Your task to perform on an android device: stop showing notifications on the lock screen Image 0: 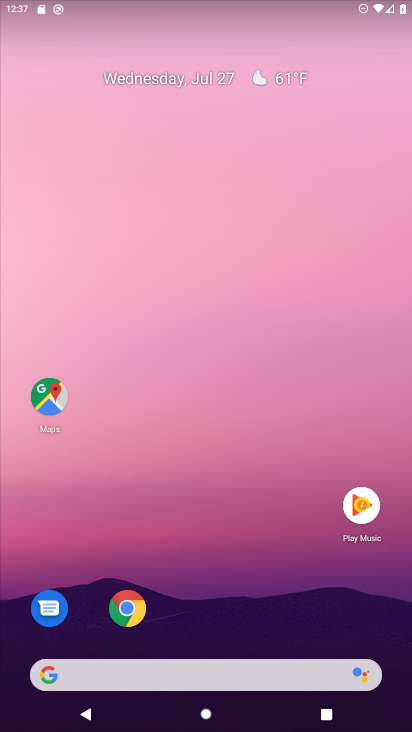
Step 0: press home button
Your task to perform on an android device: stop showing notifications on the lock screen Image 1: 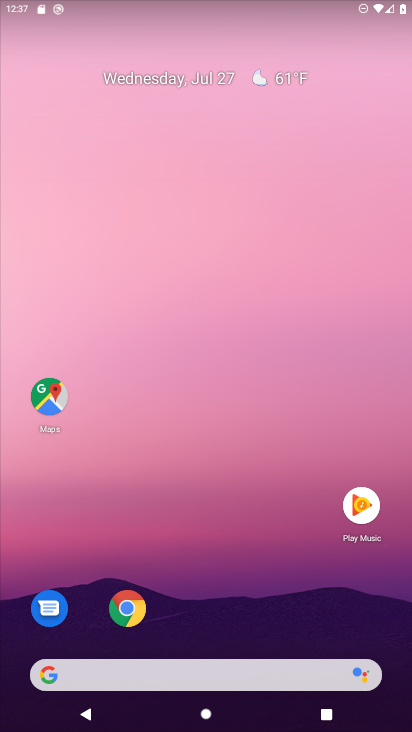
Step 1: drag from (288, 613) to (309, 272)
Your task to perform on an android device: stop showing notifications on the lock screen Image 2: 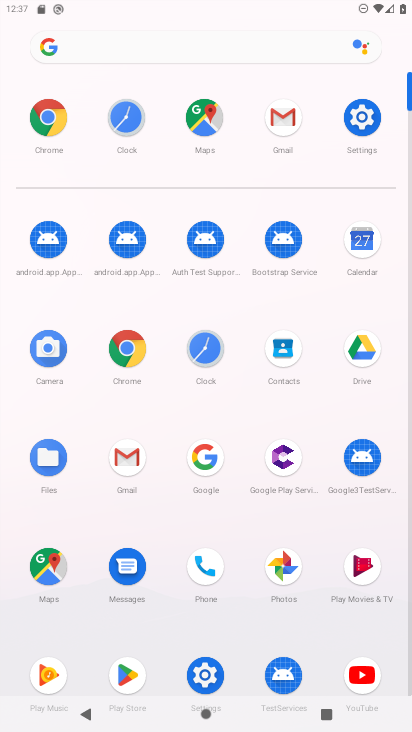
Step 2: click (361, 120)
Your task to perform on an android device: stop showing notifications on the lock screen Image 3: 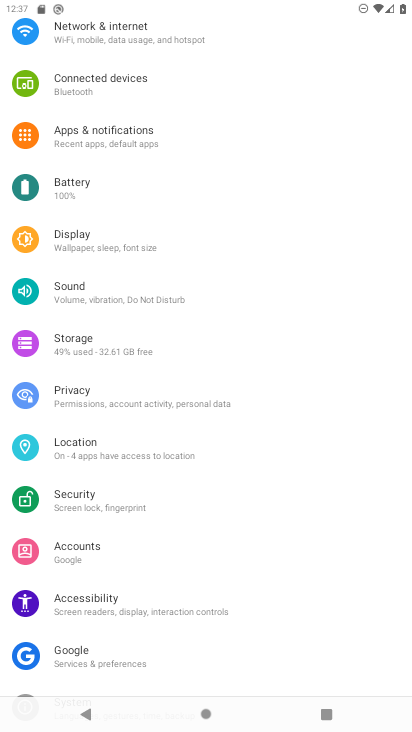
Step 3: drag from (361, 120) to (342, 286)
Your task to perform on an android device: stop showing notifications on the lock screen Image 4: 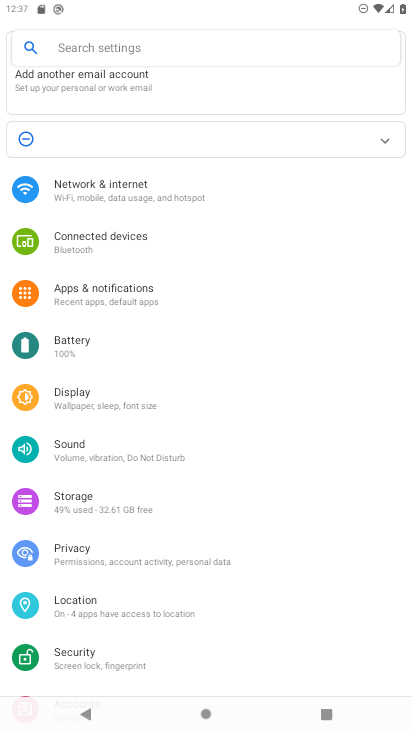
Step 4: drag from (314, 484) to (314, 406)
Your task to perform on an android device: stop showing notifications on the lock screen Image 5: 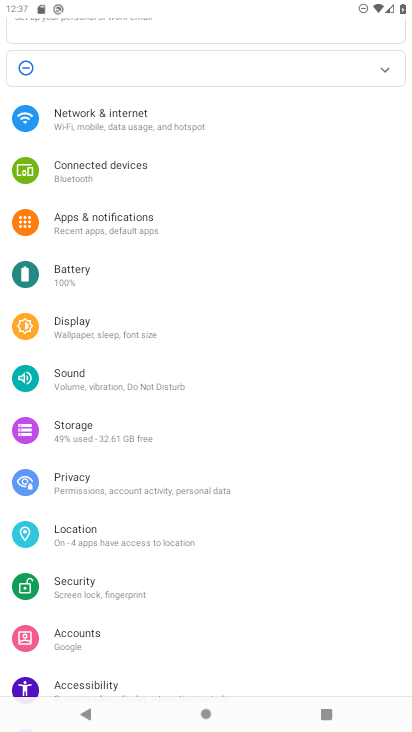
Step 5: drag from (307, 522) to (305, 426)
Your task to perform on an android device: stop showing notifications on the lock screen Image 6: 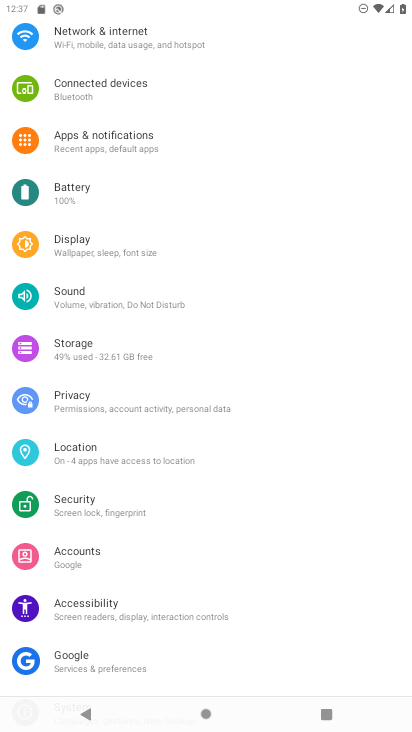
Step 6: drag from (295, 531) to (298, 456)
Your task to perform on an android device: stop showing notifications on the lock screen Image 7: 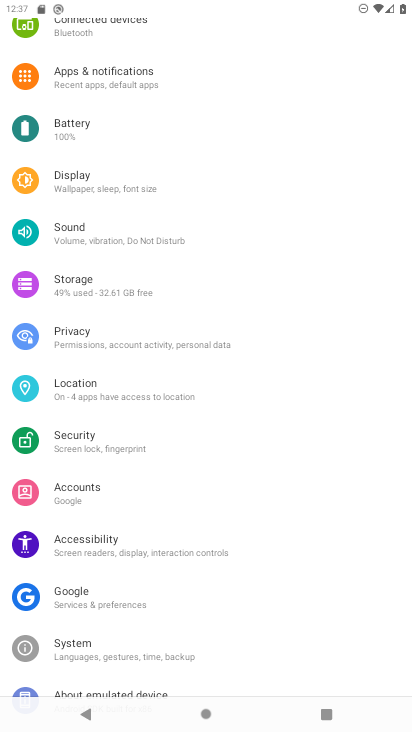
Step 7: drag from (293, 536) to (297, 479)
Your task to perform on an android device: stop showing notifications on the lock screen Image 8: 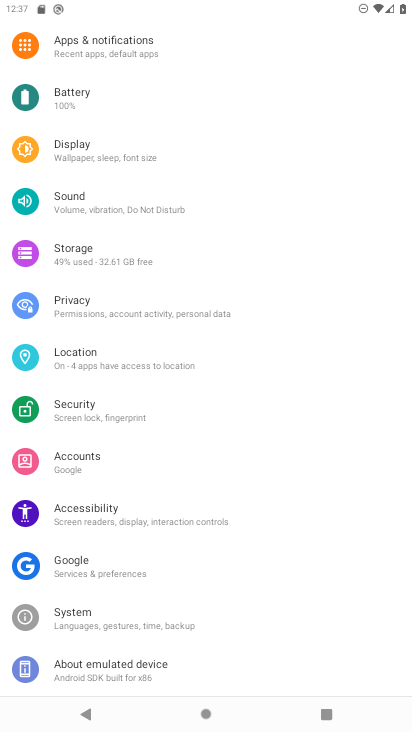
Step 8: drag from (286, 348) to (280, 402)
Your task to perform on an android device: stop showing notifications on the lock screen Image 9: 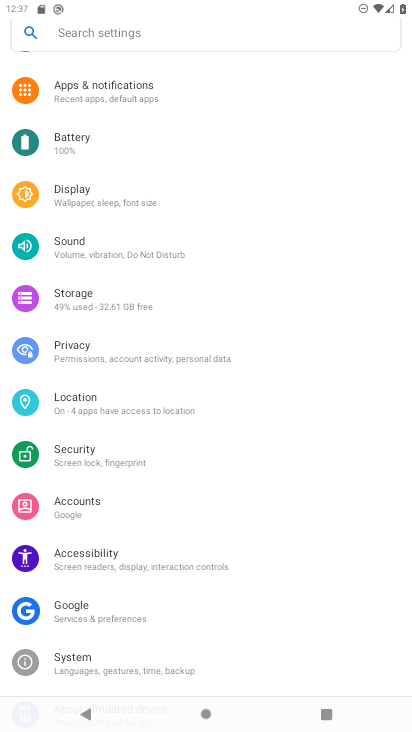
Step 9: drag from (281, 288) to (283, 356)
Your task to perform on an android device: stop showing notifications on the lock screen Image 10: 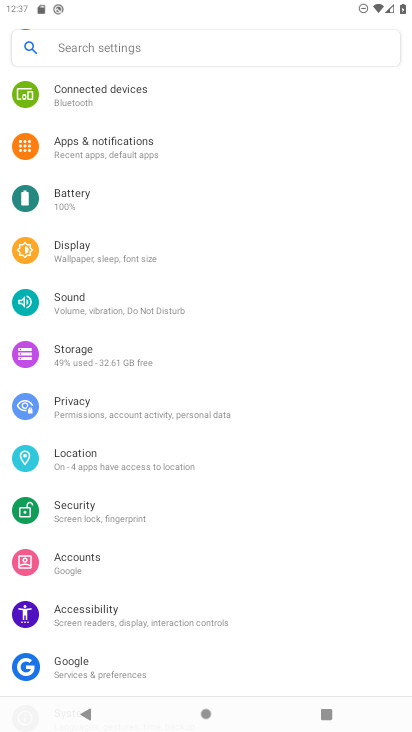
Step 10: drag from (278, 236) to (283, 368)
Your task to perform on an android device: stop showing notifications on the lock screen Image 11: 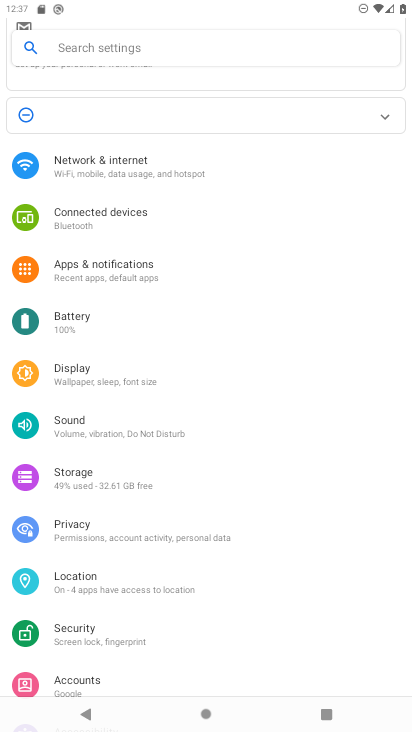
Step 11: click (133, 274)
Your task to perform on an android device: stop showing notifications on the lock screen Image 12: 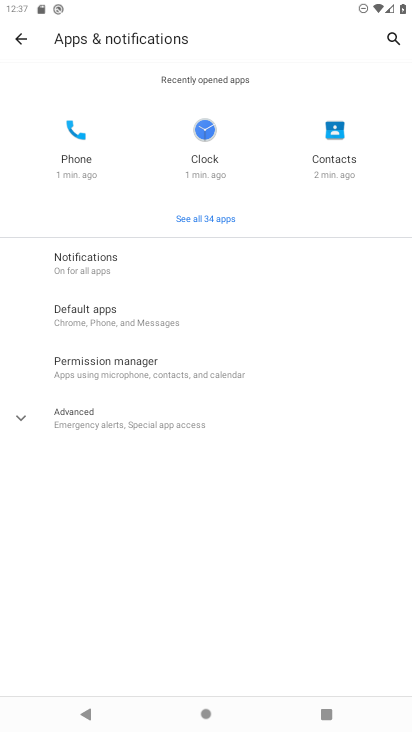
Step 12: click (118, 261)
Your task to perform on an android device: stop showing notifications on the lock screen Image 13: 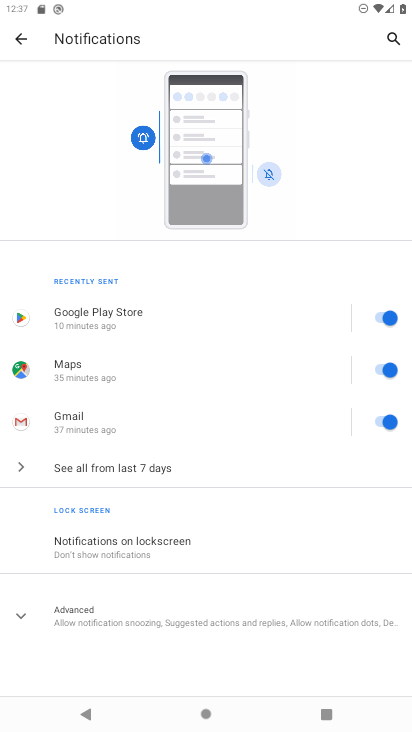
Step 13: click (180, 548)
Your task to perform on an android device: stop showing notifications on the lock screen Image 14: 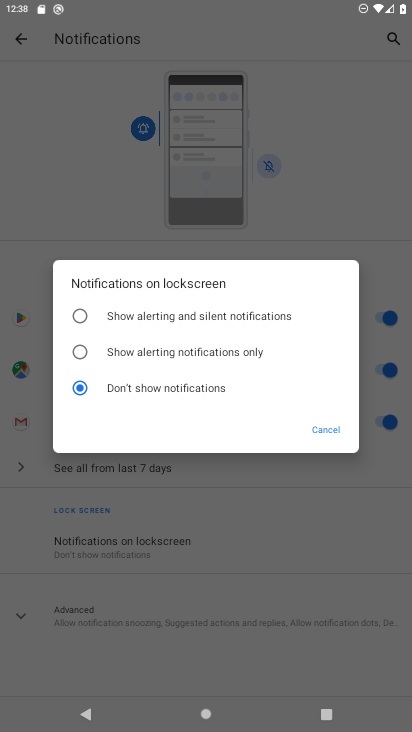
Step 14: task complete